Your task to perform on an android device: star an email in the gmail app Image 0: 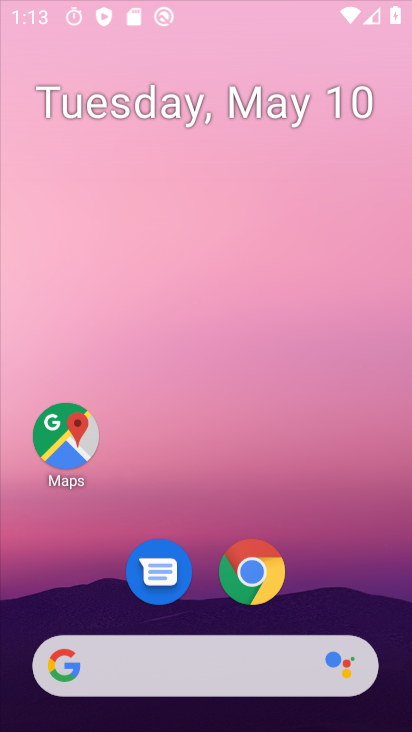
Step 0: click (248, 73)
Your task to perform on an android device: star an email in the gmail app Image 1: 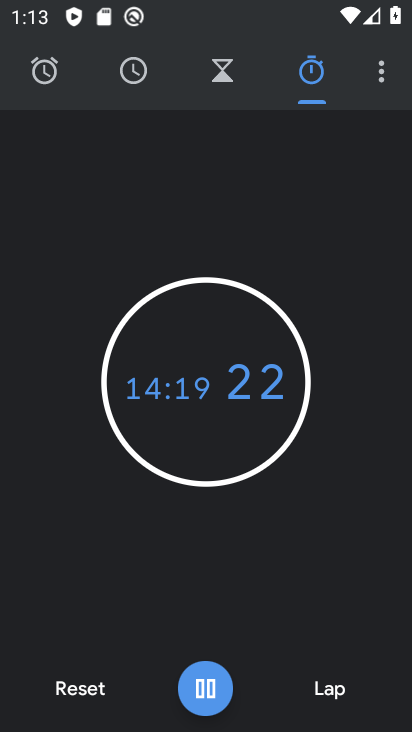
Step 1: press home button
Your task to perform on an android device: star an email in the gmail app Image 2: 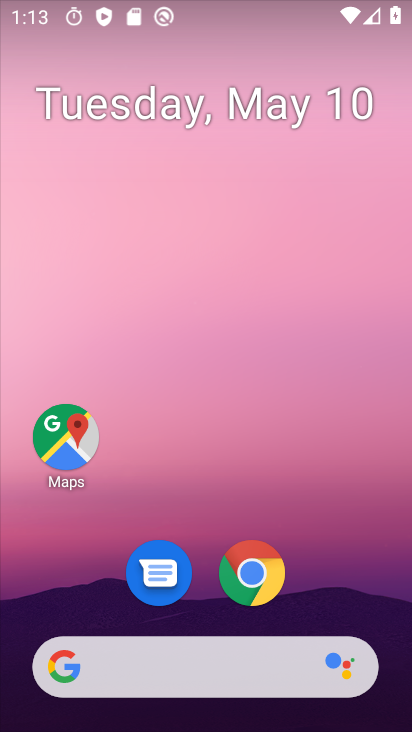
Step 2: drag from (349, 538) to (241, 0)
Your task to perform on an android device: star an email in the gmail app Image 3: 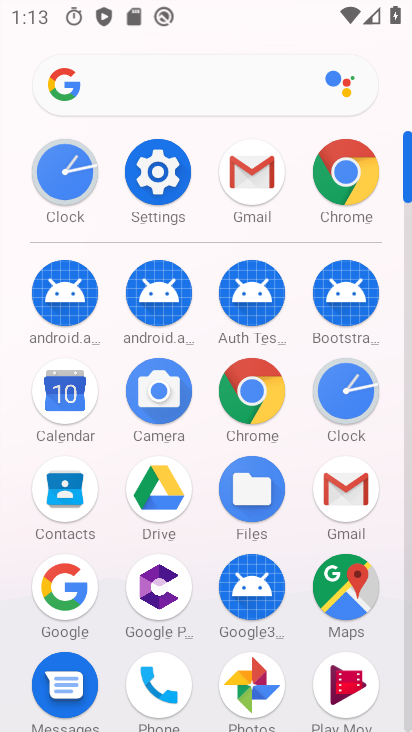
Step 3: click (173, 229)
Your task to perform on an android device: star an email in the gmail app Image 4: 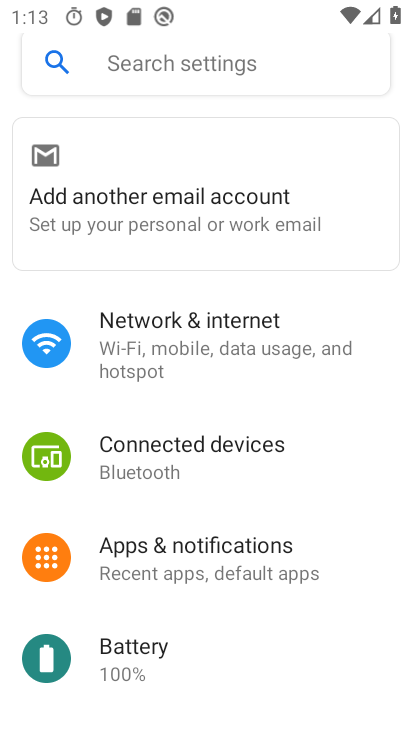
Step 4: press home button
Your task to perform on an android device: star an email in the gmail app Image 5: 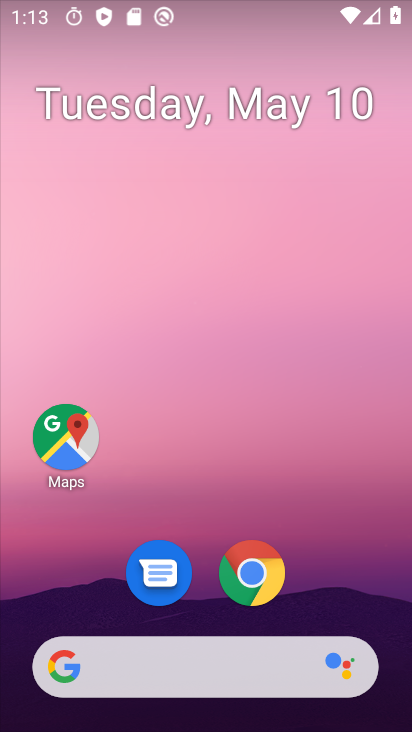
Step 5: drag from (326, 525) to (248, 40)
Your task to perform on an android device: star an email in the gmail app Image 6: 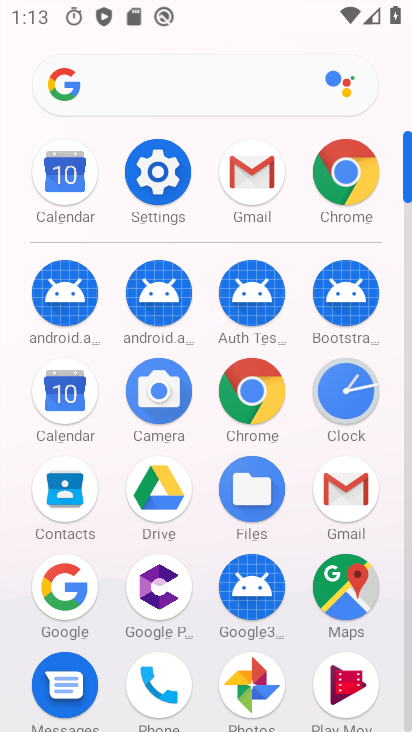
Step 6: click (250, 158)
Your task to perform on an android device: star an email in the gmail app Image 7: 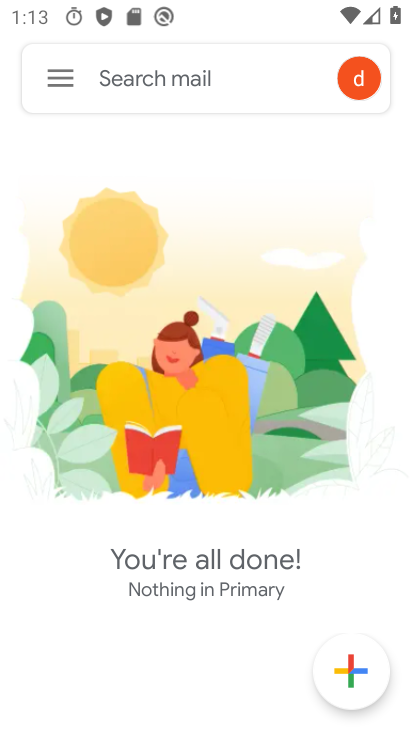
Step 7: click (67, 89)
Your task to perform on an android device: star an email in the gmail app Image 8: 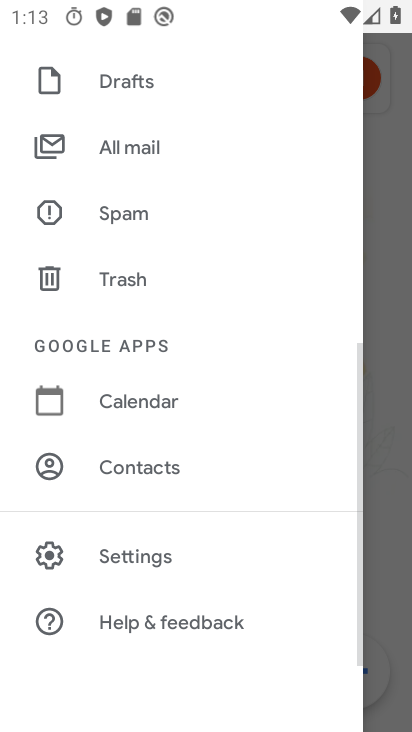
Step 8: drag from (111, 151) to (187, 542)
Your task to perform on an android device: star an email in the gmail app Image 9: 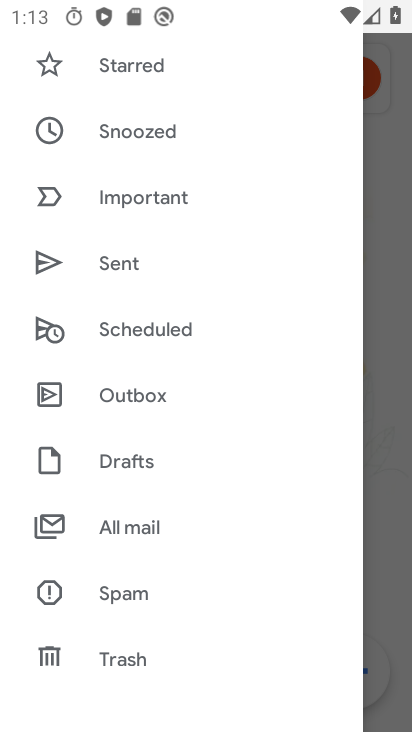
Step 9: drag from (134, 111) to (165, 545)
Your task to perform on an android device: star an email in the gmail app Image 10: 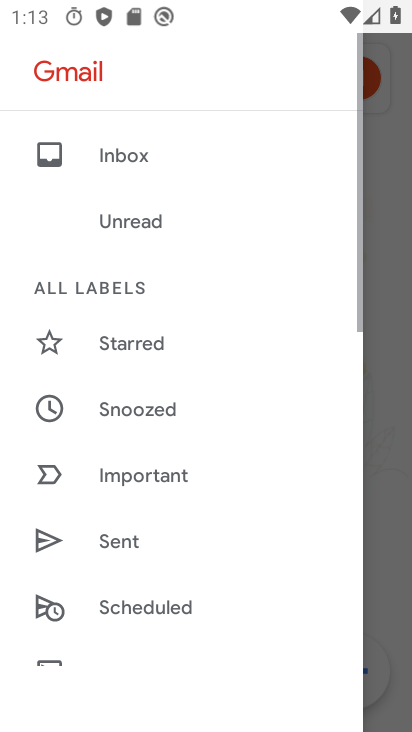
Step 10: click (132, 156)
Your task to perform on an android device: star an email in the gmail app Image 11: 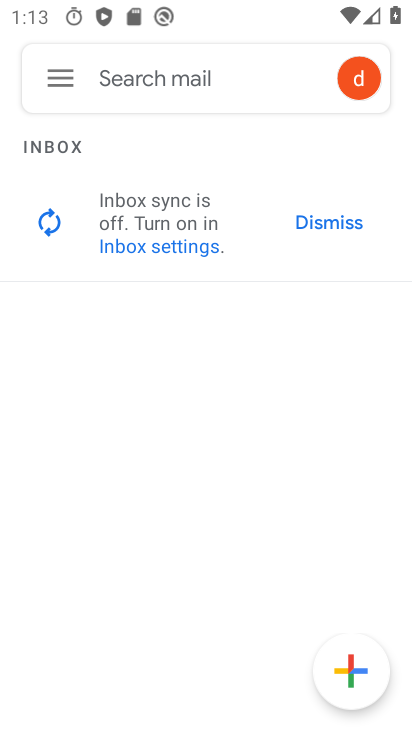
Step 11: task complete